Your task to perform on an android device: open the mobile data screen to see how much data has been used Image 0: 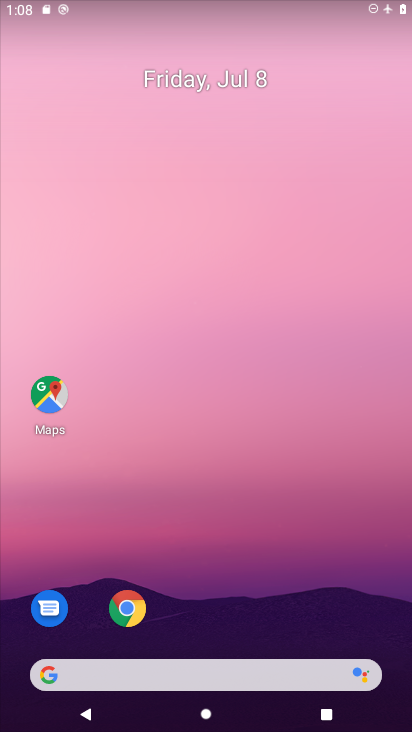
Step 0: drag from (234, 610) to (273, 144)
Your task to perform on an android device: open the mobile data screen to see how much data has been used Image 1: 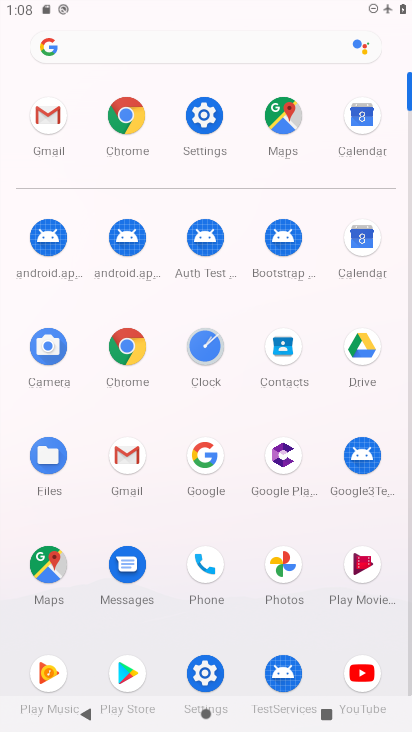
Step 1: click (200, 142)
Your task to perform on an android device: open the mobile data screen to see how much data has been used Image 2: 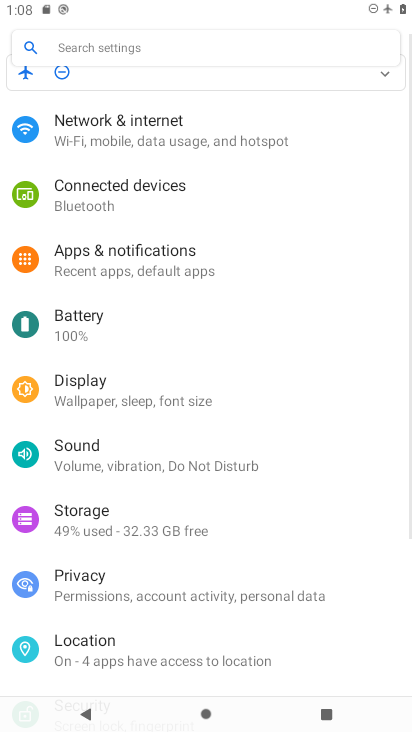
Step 2: click (148, 139)
Your task to perform on an android device: open the mobile data screen to see how much data has been used Image 3: 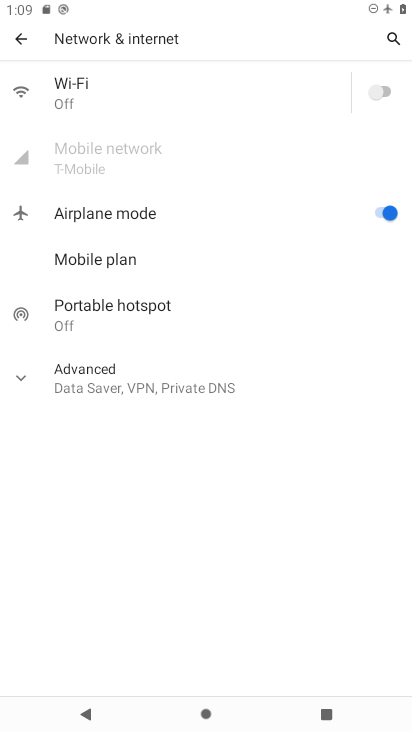
Step 3: click (382, 216)
Your task to perform on an android device: open the mobile data screen to see how much data has been used Image 4: 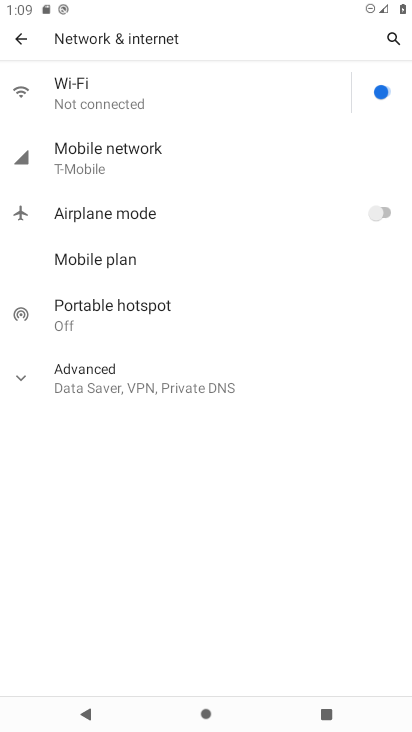
Step 4: click (188, 146)
Your task to perform on an android device: open the mobile data screen to see how much data has been used Image 5: 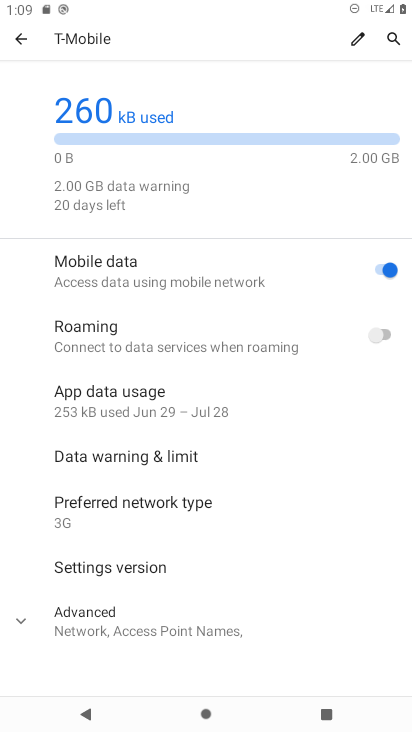
Step 5: task complete